Your task to perform on an android device: Go to settings Image 0: 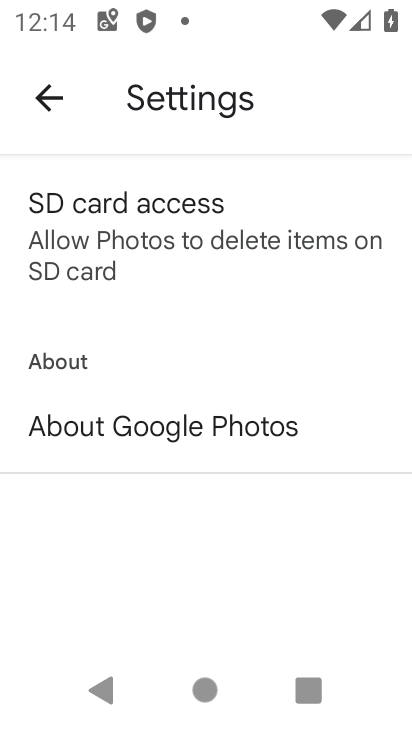
Step 0: press home button
Your task to perform on an android device: Go to settings Image 1: 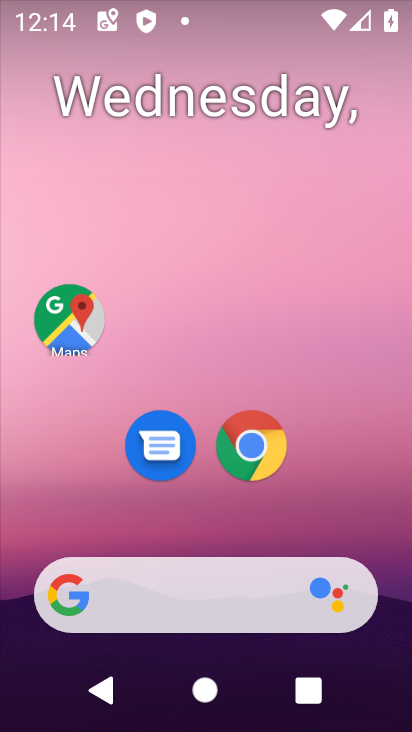
Step 1: drag from (273, 198) to (215, 12)
Your task to perform on an android device: Go to settings Image 2: 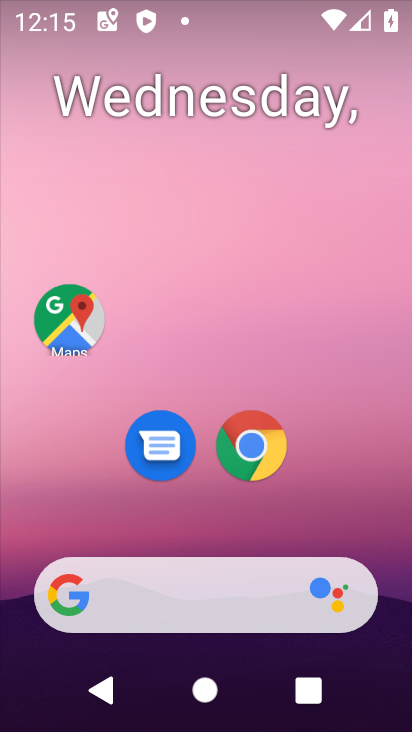
Step 2: drag from (340, 262) to (324, 79)
Your task to perform on an android device: Go to settings Image 3: 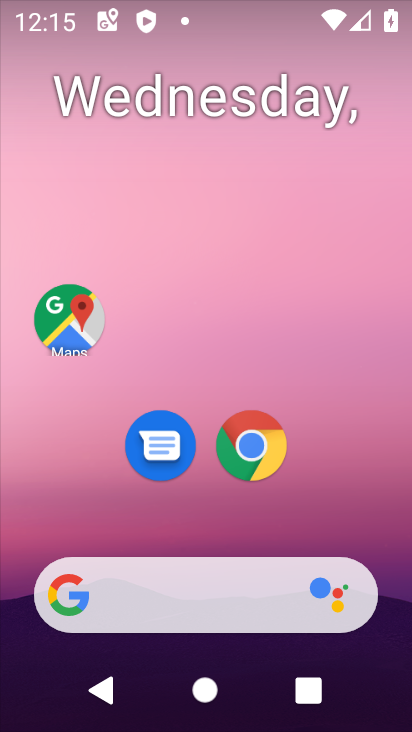
Step 3: drag from (316, 296) to (310, 128)
Your task to perform on an android device: Go to settings Image 4: 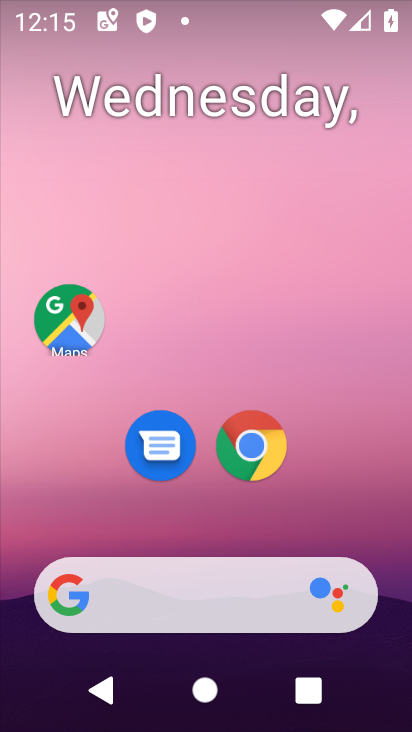
Step 4: drag from (370, 486) to (299, 47)
Your task to perform on an android device: Go to settings Image 5: 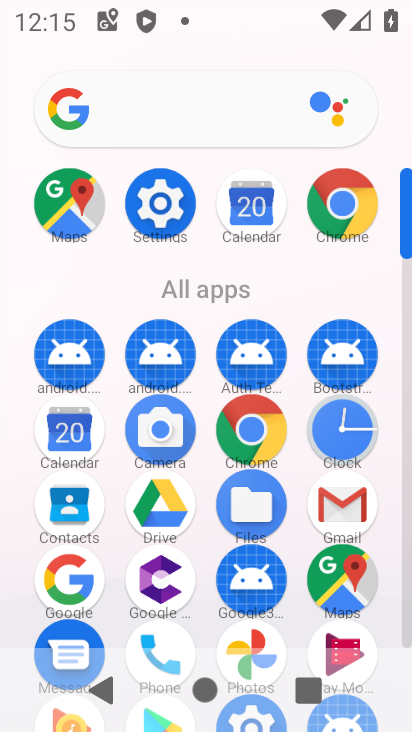
Step 5: click (152, 203)
Your task to perform on an android device: Go to settings Image 6: 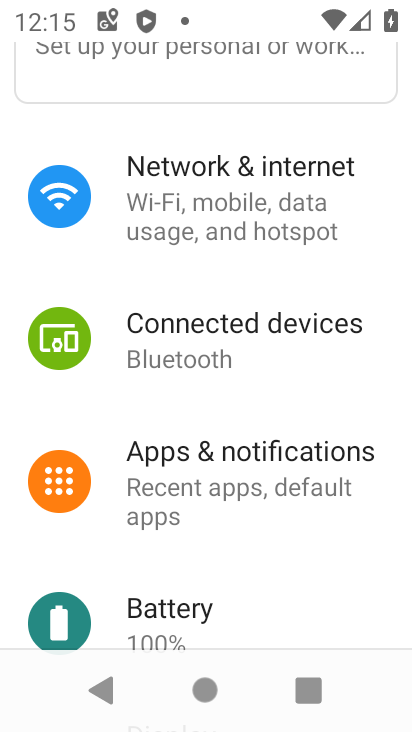
Step 6: task complete